Your task to perform on an android device: Open display settings Image 0: 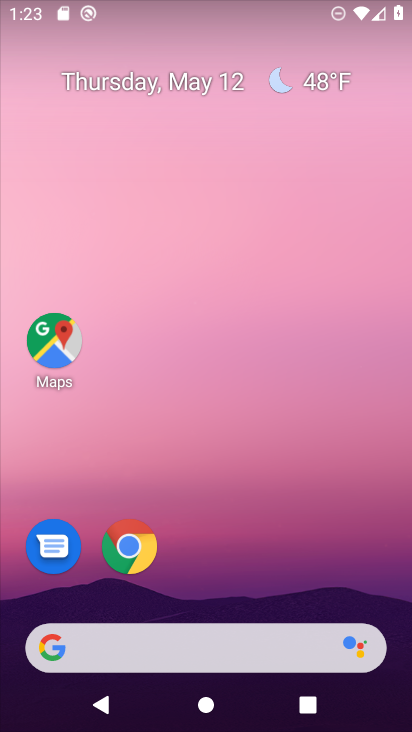
Step 0: drag from (243, 679) to (282, 382)
Your task to perform on an android device: Open display settings Image 1: 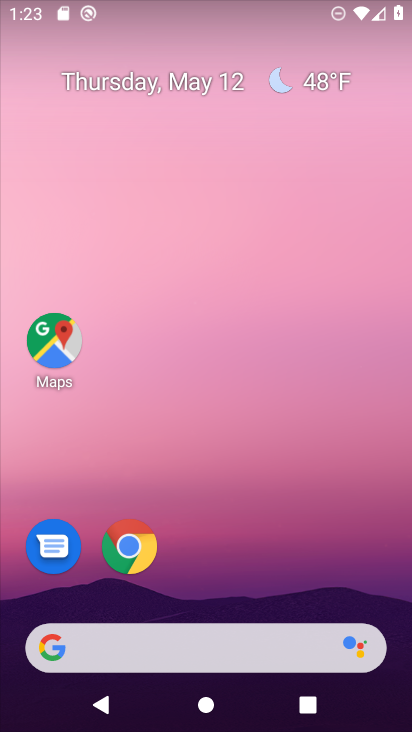
Step 1: drag from (277, 664) to (295, 185)
Your task to perform on an android device: Open display settings Image 2: 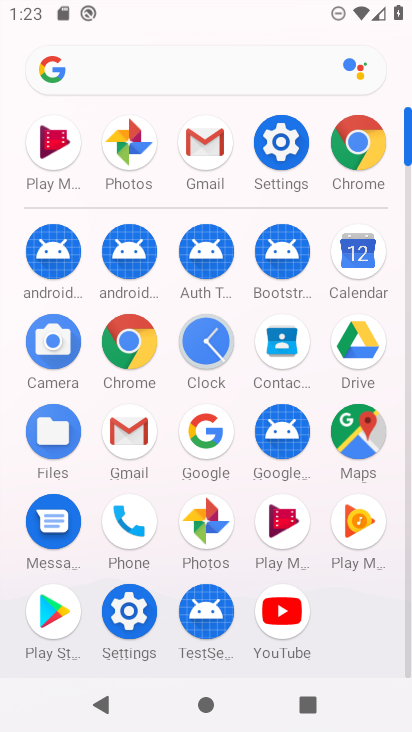
Step 2: click (262, 147)
Your task to perform on an android device: Open display settings Image 3: 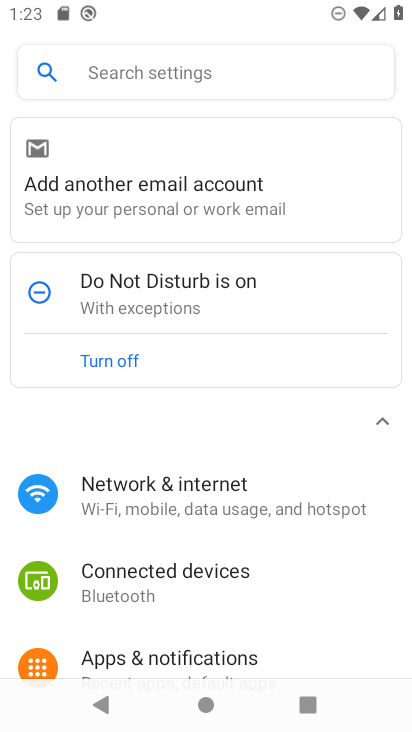
Step 3: drag from (239, 578) to (237, 291)
Your task to perform on an android device: Open display settings Image 4: 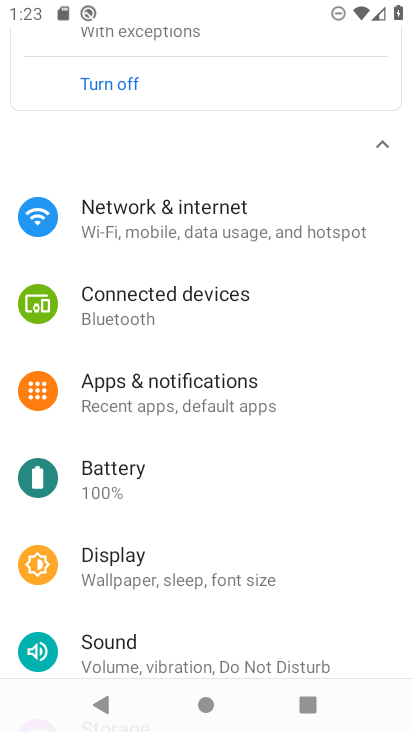
Step 4: click (120, 562)
Your task to perform on an android device: Open display settings Image 5: 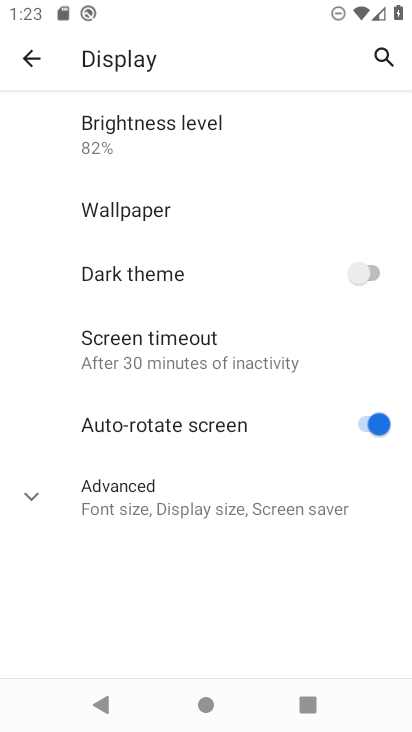
Step 5: task complete